Your task to perform on an android device: Open location settings Image 0: 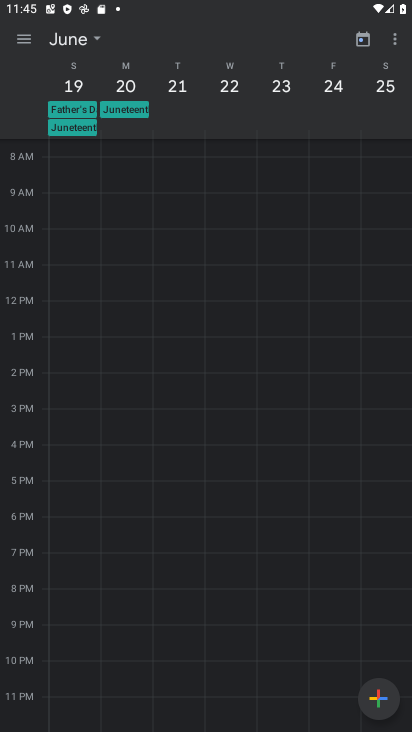
Step 0: press home button
Your task to perform on an android device: Open location settings Image 1: 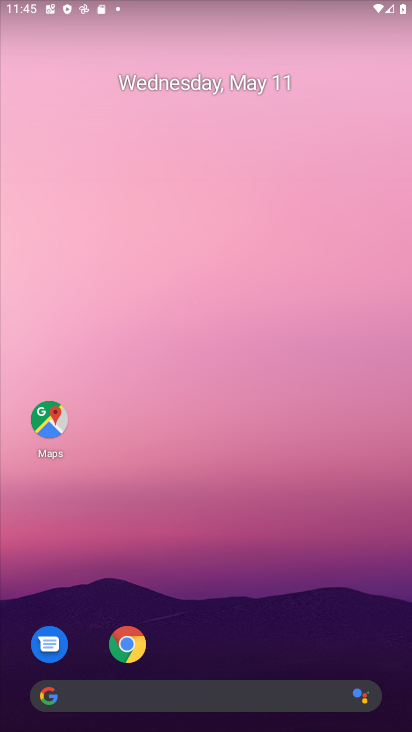
Step 1: drag from (316, 642) to (132, 0)
Your task to perform on an android device: Open location settings Image 2: 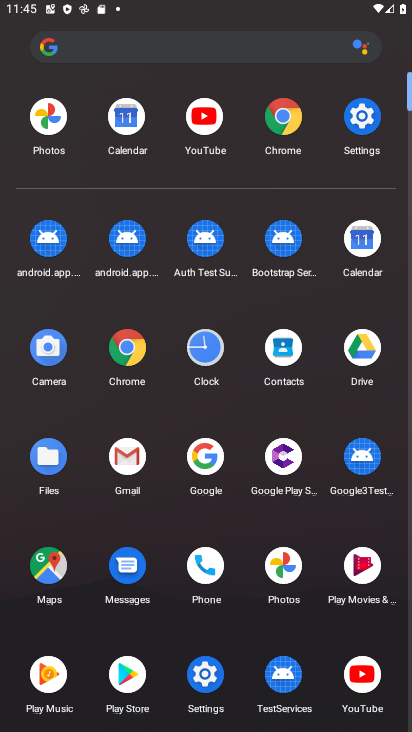
Step 2: click (360, 126)
Your task to perform on an android device: Open location settings Image 3: 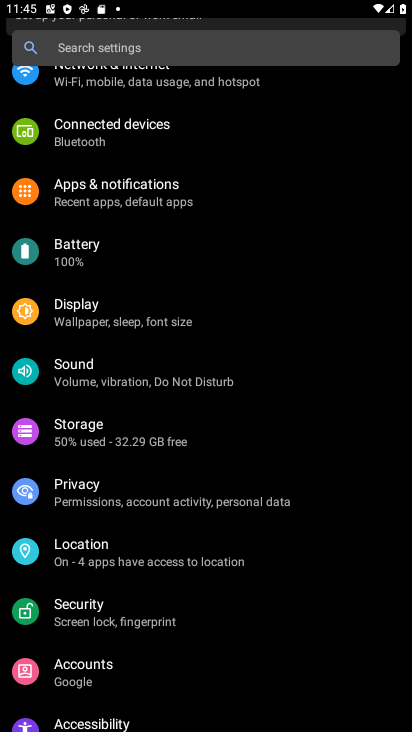
Step 3: click (121, 546)
Your task to perform on an android device: Open location settings Image 4: 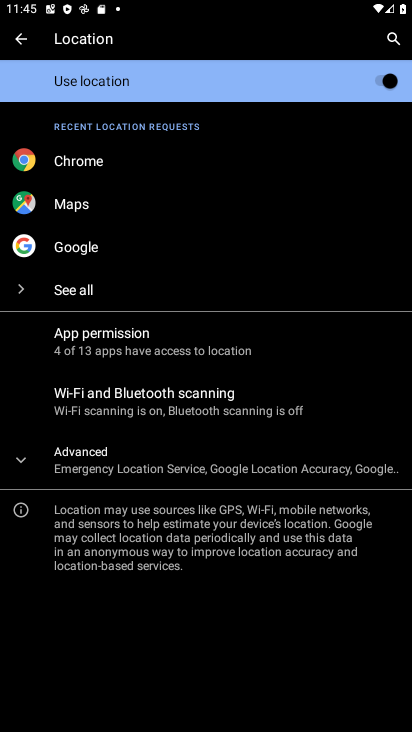
Step 4: click (126, 463)
Your task to perform on an android device: Open location settings Image 5: 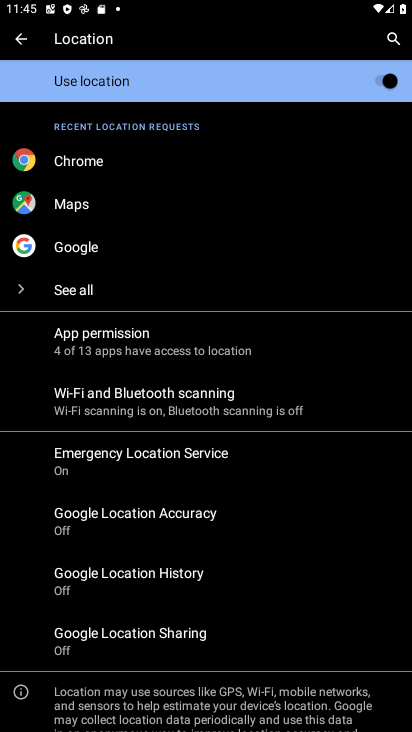
Step 5: task complete